Your task to perform on an android device: set the timer Image 0: 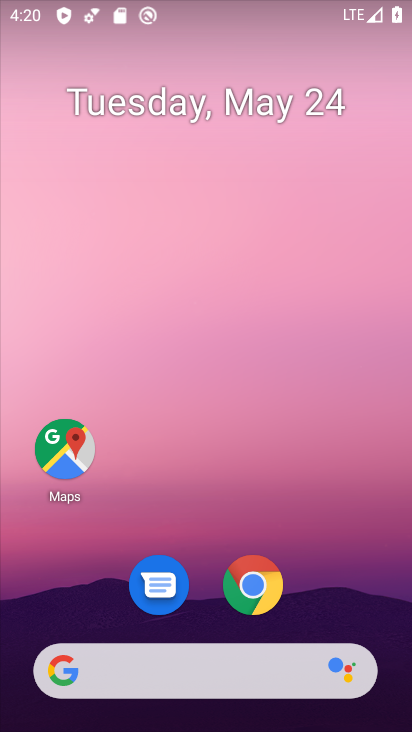
Step 0: drag from (252, 510) to (284, 80)
Your task to perform on an android device: set the timer Image 1: 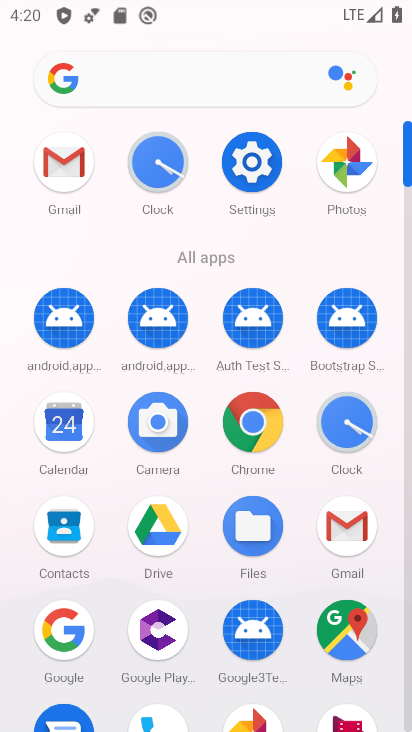
Step 1: click (346, 415)
Your task to perform on an android device: set the timer Image 2: 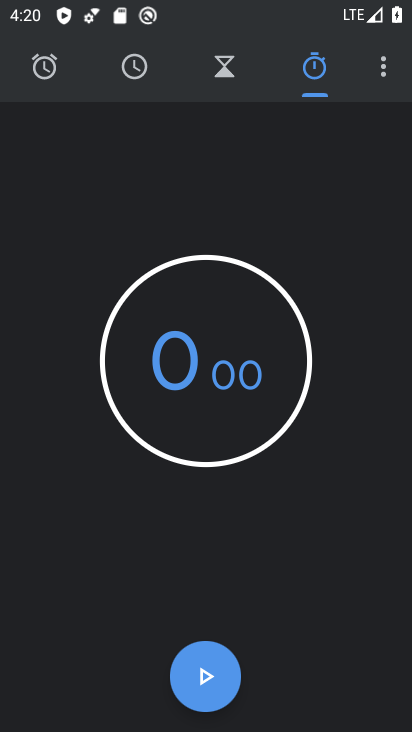
Step 2: click (228, 76)
Your task to perform on an android device: set the timer Image 3: 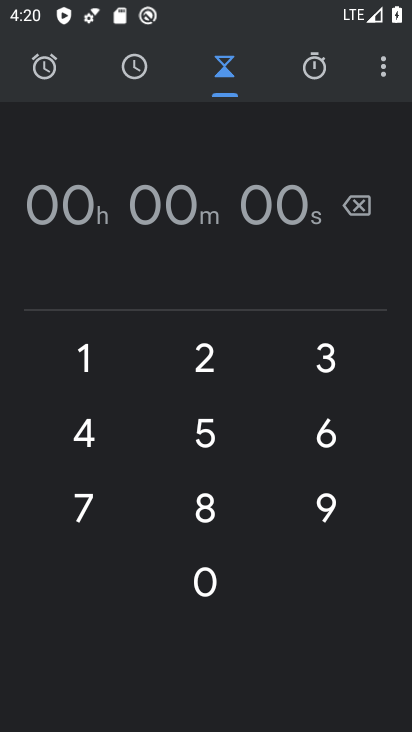
Step 3: click (90, 357)
Your task to perform on an android device: set the timer Image 4: 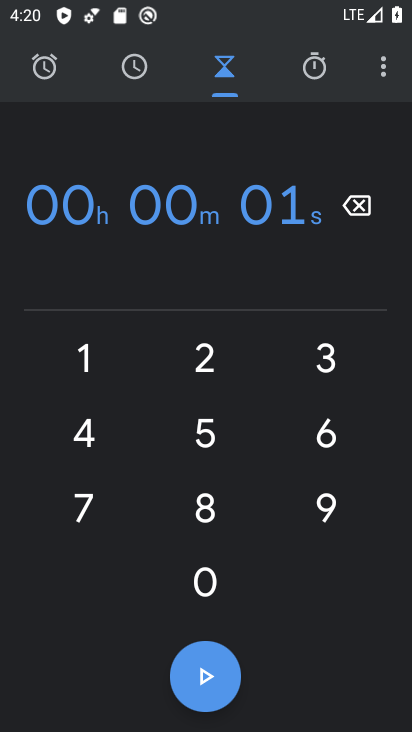
Step 4: task complete